Your task to perform on an android device: Open privacy settings Image 0: 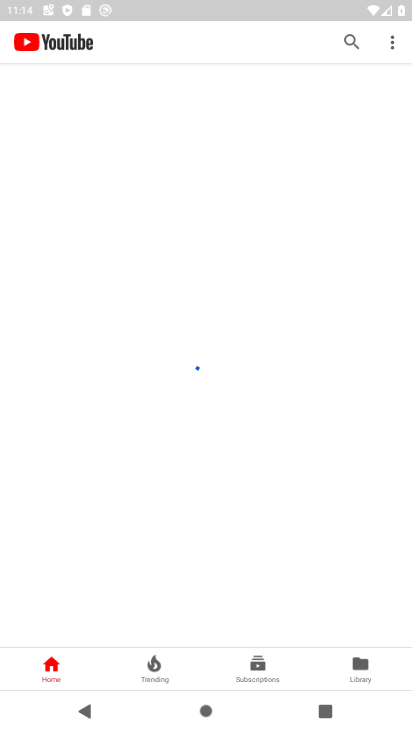
Step 0: drag from (347, 4) to (251, 563)
Your task to perform on an android device: Open privacy settings Image 1: 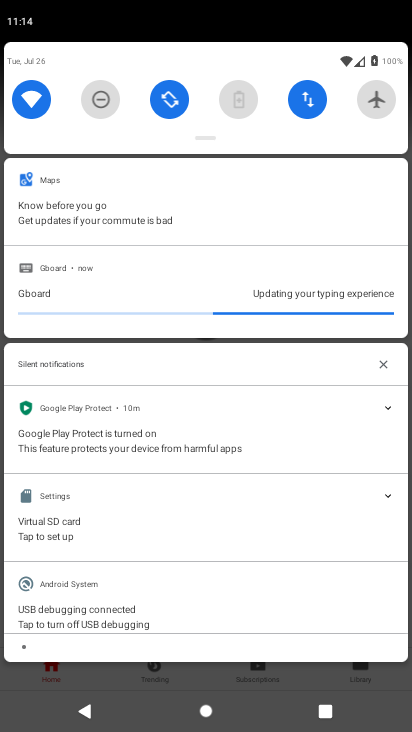
Step 1: press home button
Your task to perform on an android device: Open privacy settings Image 2: 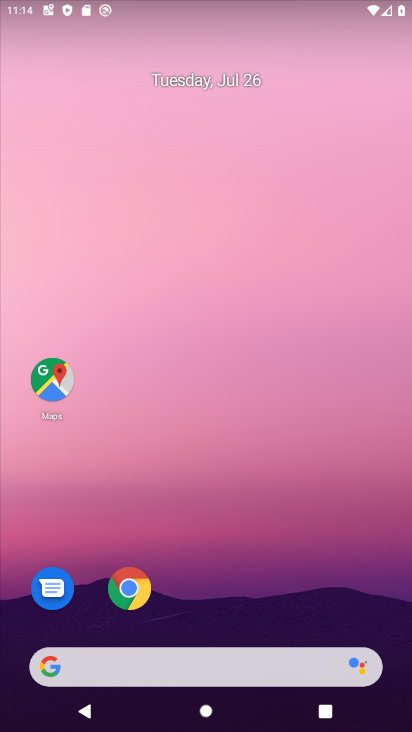
Step 2: drag from (268, 612) to (313, 39)
Your task to perform on an android device: Open privacy settings Image 3: 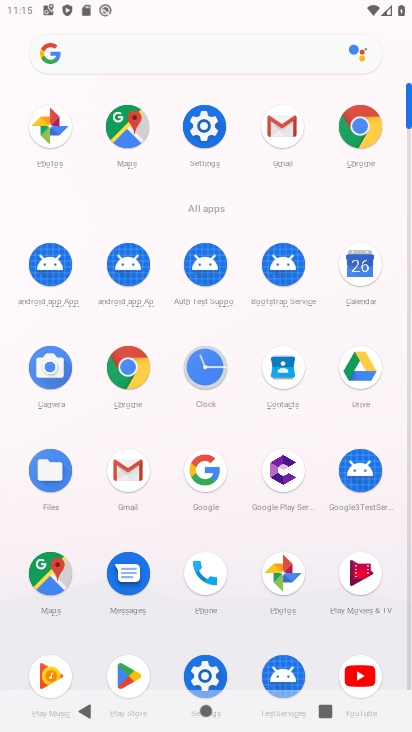
Step 3: click (196, 129)
Your task to perform on an android device: Open privacy settings Image 4: 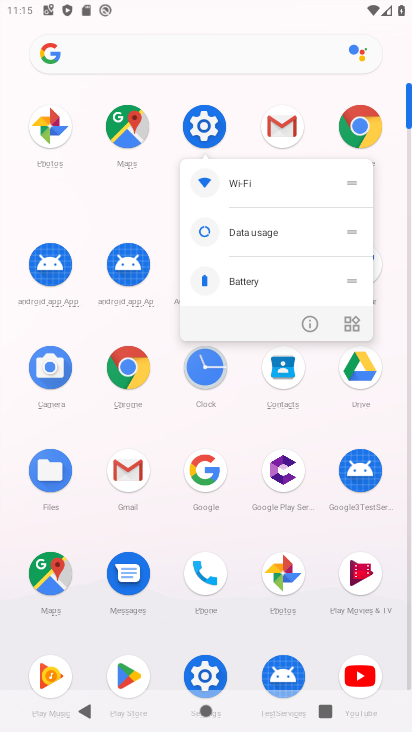
Step 4: click (196, 129)
Your task to perform on an android device: Open privacy settings Image 5: 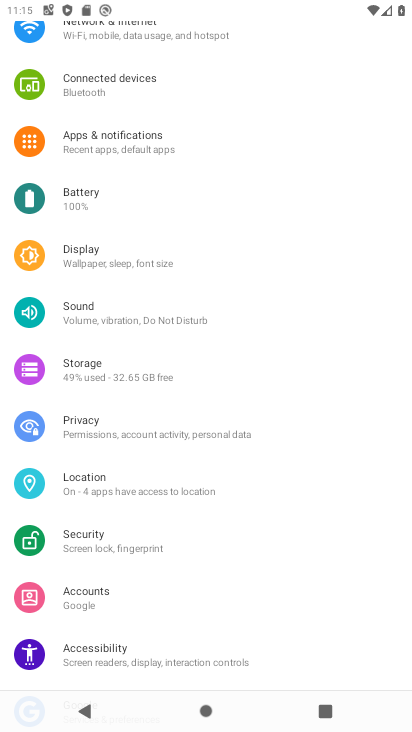
Step 5: click (129, 430)
Your task to perform on an android device: Open privacy settings Image 6: 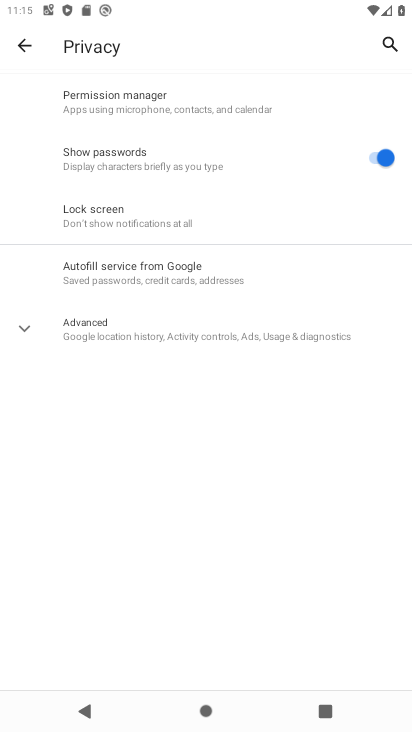
Step 6: task complete